Your task to perform on an android device: Go to Reddit.com Image 0: 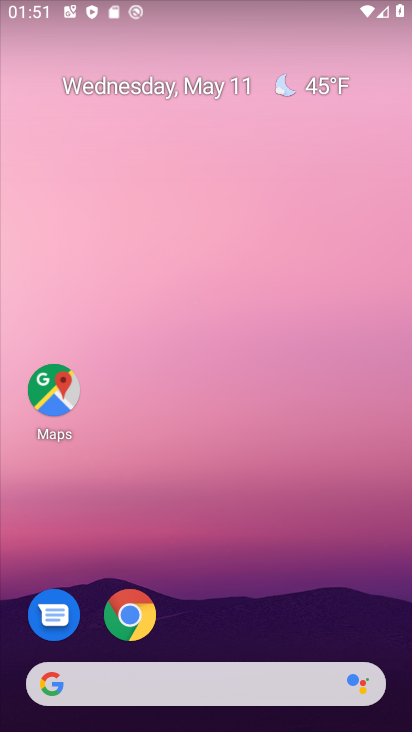
Step 0: drag from (311, 549) to (352, 202)
Your task to perform on an android device: Go to Reddit.com Image 1: 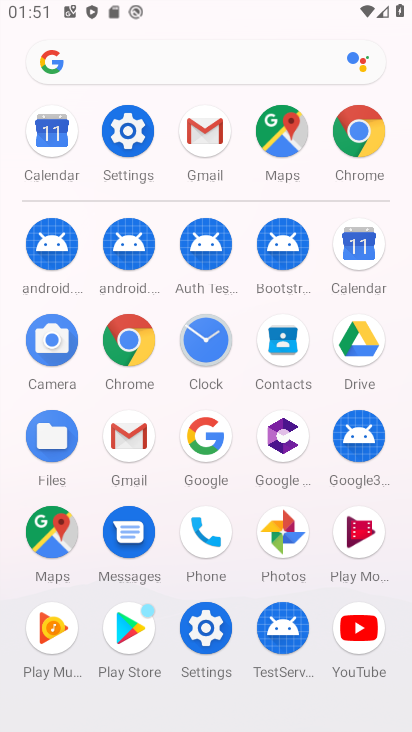
Step 1: click (104, 371)
Your task to perform on an android device: Go to Reddit.com Image 2: 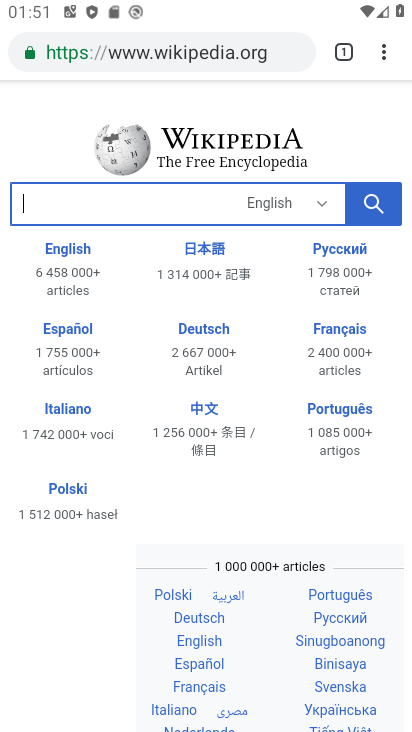
Step 2: click (183, 63)
Your task to perform on an android device: Go to Reddit.com Image 3: 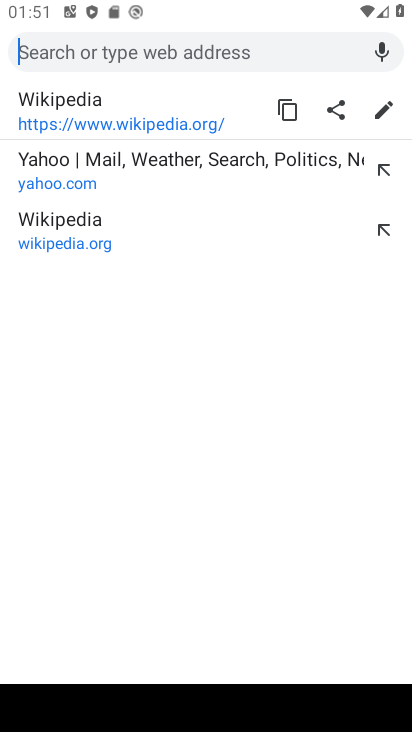
Step 3: type "reddit.com"
Your task to perform on an android device: Go to Reddit.com Image 4: 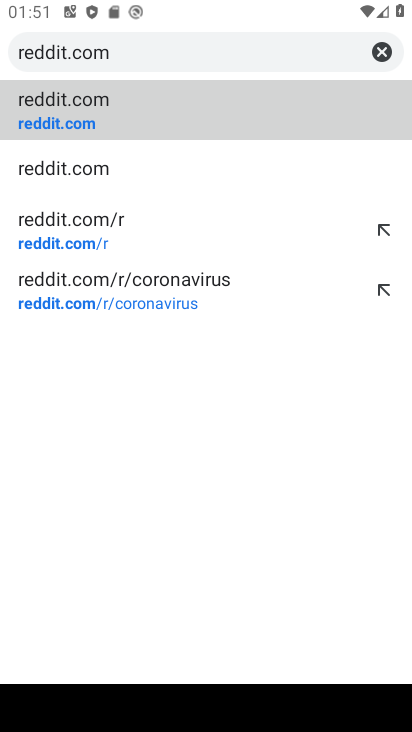
Step 4: click (92, 110)
Your task to perform on an android device: Go to Reddit.com Image 5: 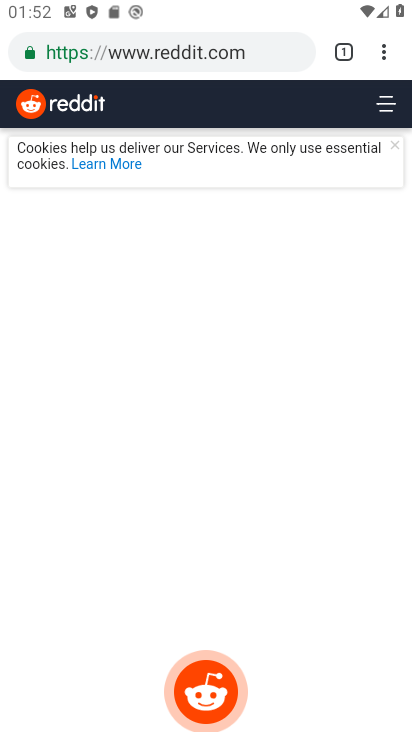
Step 5: task complete